Your task to perform on an android device: turn on showing notifications on the lock screen Image 0: 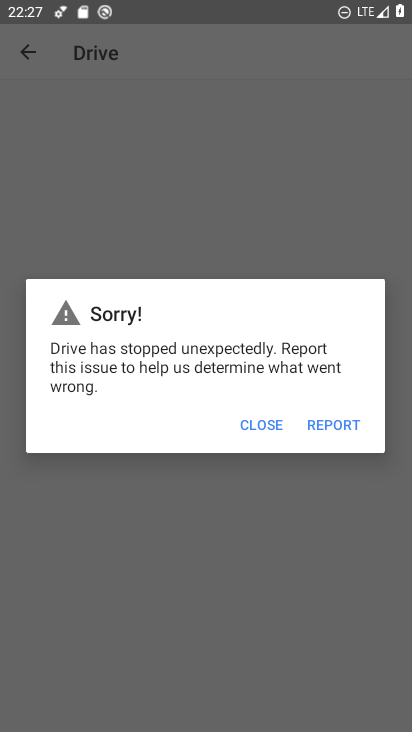
Step 0: press home button
Your task to perform on an android device: turn on showing notifications on the lock screen Image 1: 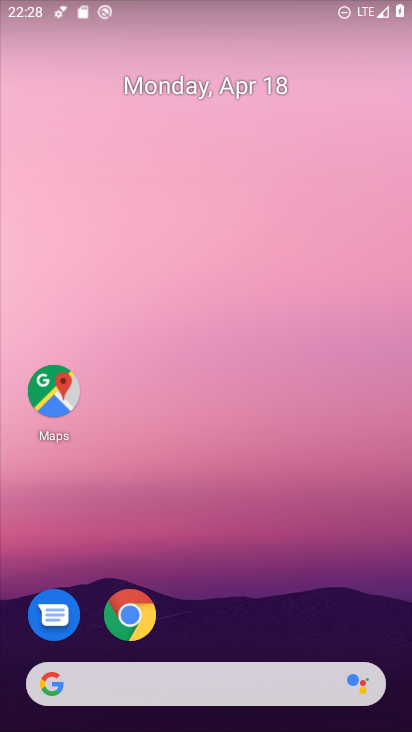
Step 1: drag from (317, 597) to (332, 54)
Your task to perform on an android device: turn on showing notifications on the lock screen Image 2: 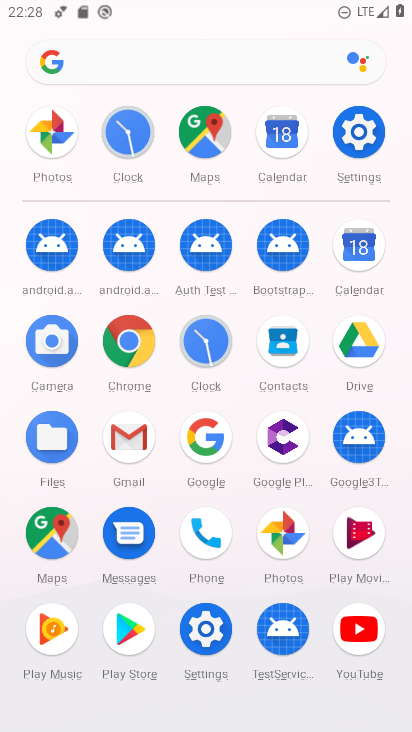
Step 2: click (370, 133)
Your task to perform on an android device: turn on showing notifications on the lock screen Image 3: 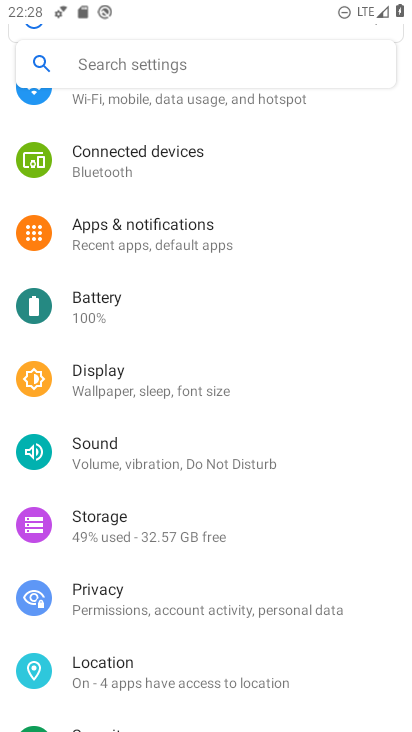
Step 3: click (175, 240)
Your task to perform on an android device: turn on showing notifications on the lock screen Image 4: 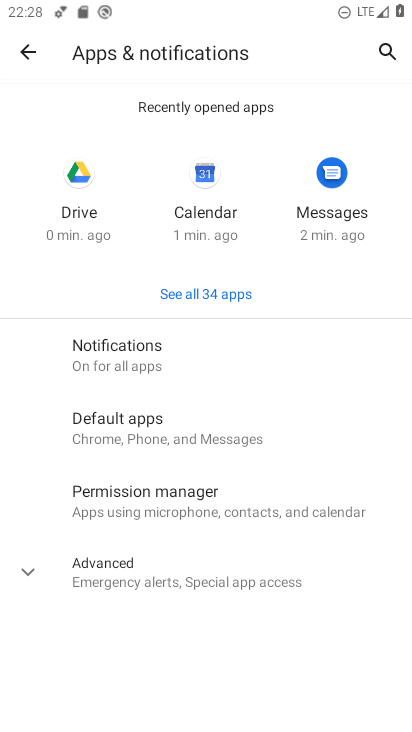
Step 4: click (108, 354)
Your task to perform on an android device: turn on showing notifications on the lock screen Image 5: 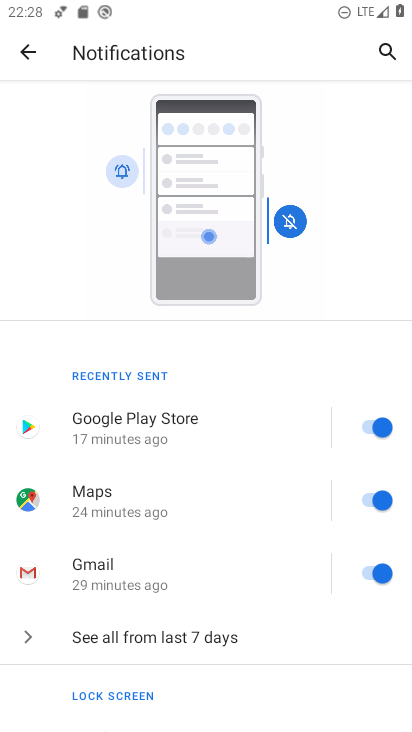
Step 5: drag from (184, 534) to (196, 151)
Your task to perform on an android device: turn on showing notifications on the lock screen Image 6: 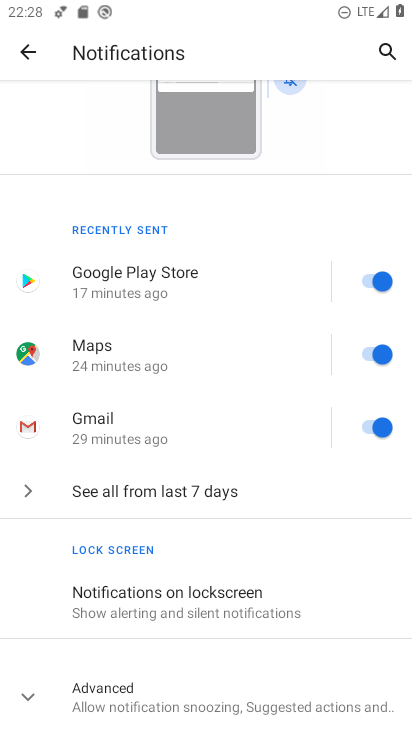
Step 6: click (119, 591)
Your task to perform on an android device: turn on showing notifications on the lock screen Image 7: 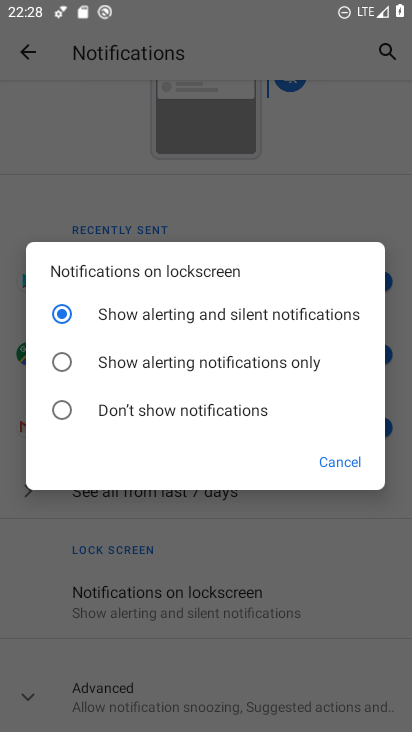
Step 7: task complete